Your task to perform on an android device: Is it going to rain today? Image 0: 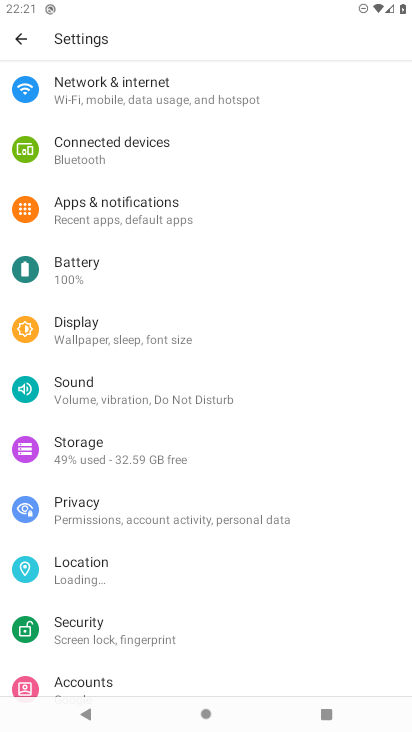
Step 0: press home button
Your task to perform on an android device: Is it going to rain today? Image 1: 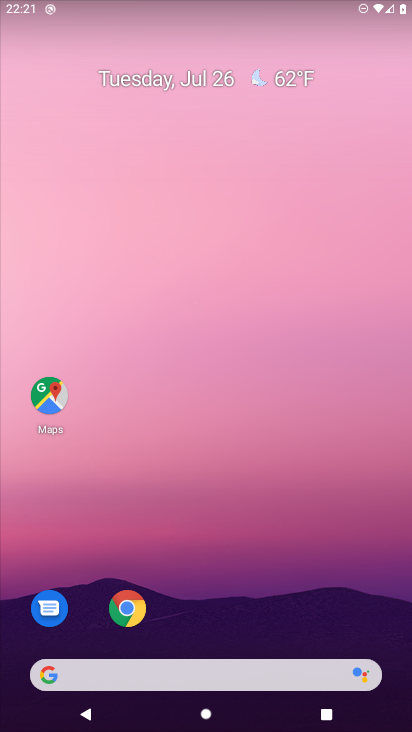
Step 1: click (90, 676)
Your task to perform on an android device: Is it going to rain today? Image 2: 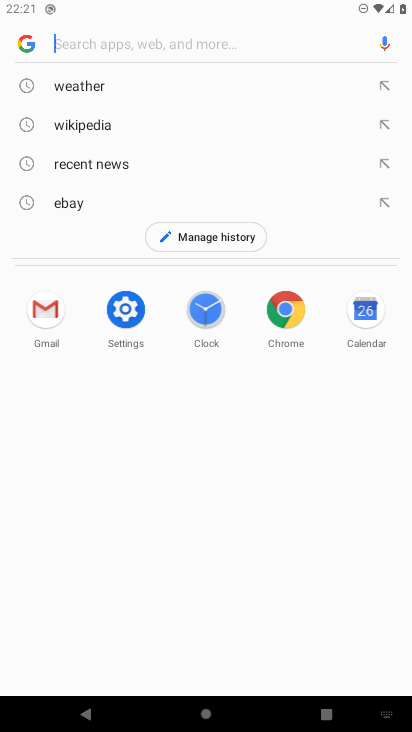
Step 2: type "Is it going to rain today?"
Your task to perform on an android device: Is it going to rain today? Image 3: 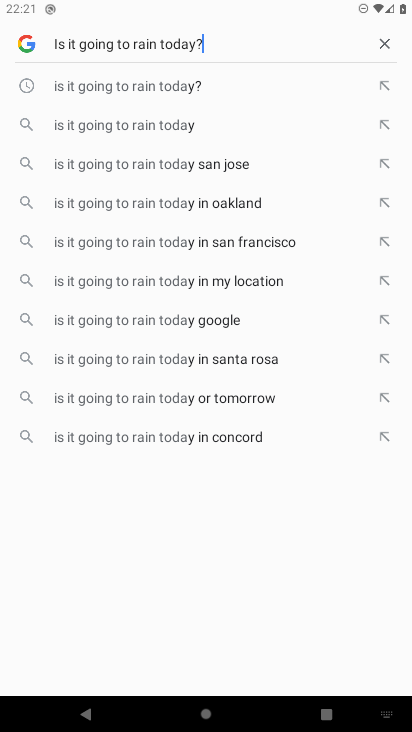
Step 3: type ""
Your task to perform on an android device: Is it going to rain today? Image 4: 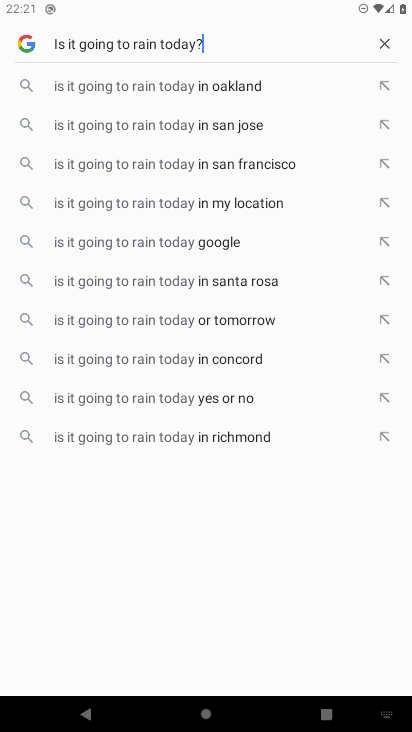
Step 4: task complete